Your task to perform on an android device: Clear all items from cart on bestbuy. Image 0: 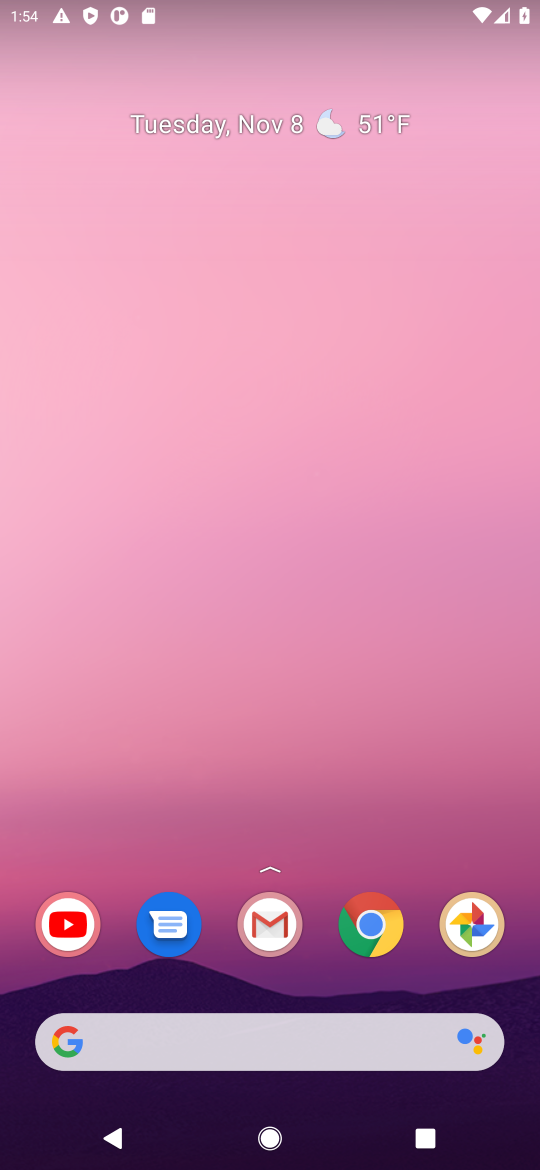
Step 0: click (385, 856)
Your task to perform on an android device: Clear all items from cart on bestbuy. Image 1: 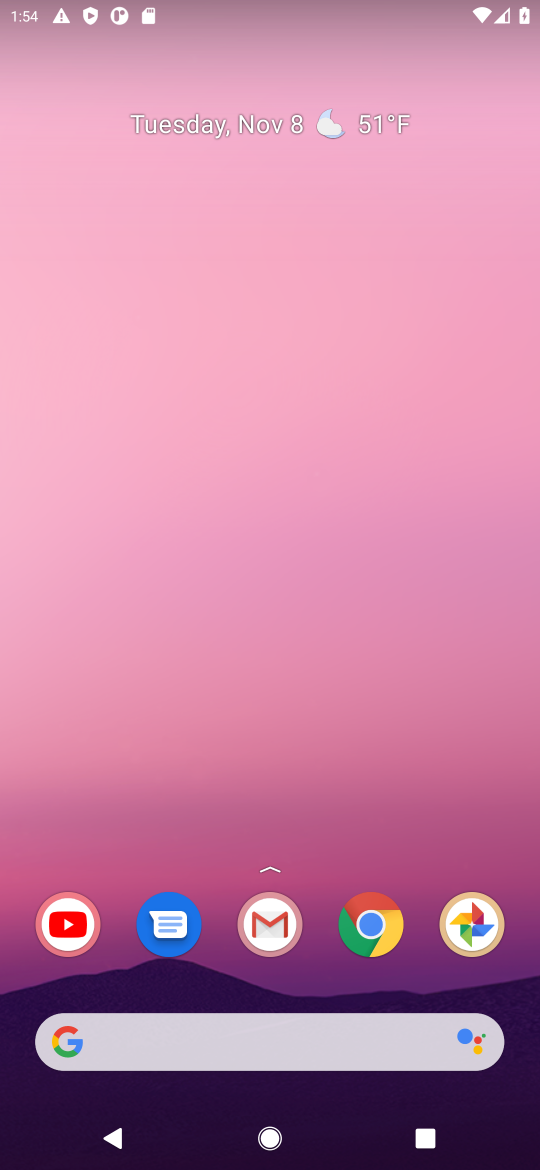
Step 1: click (385, 936)
Your task to perform on an android device: Clear all items from cart on bestbuy. Image 2: 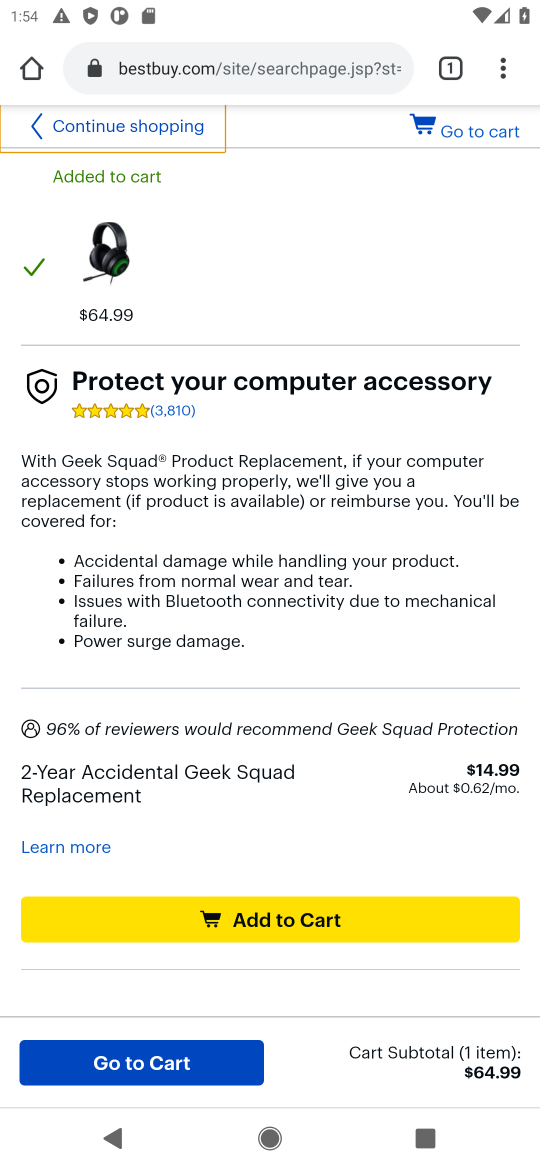
Step 2: click (477, 128)
Your task to perform on an android device: Clear all items from cart on bestbuy. Image 3: 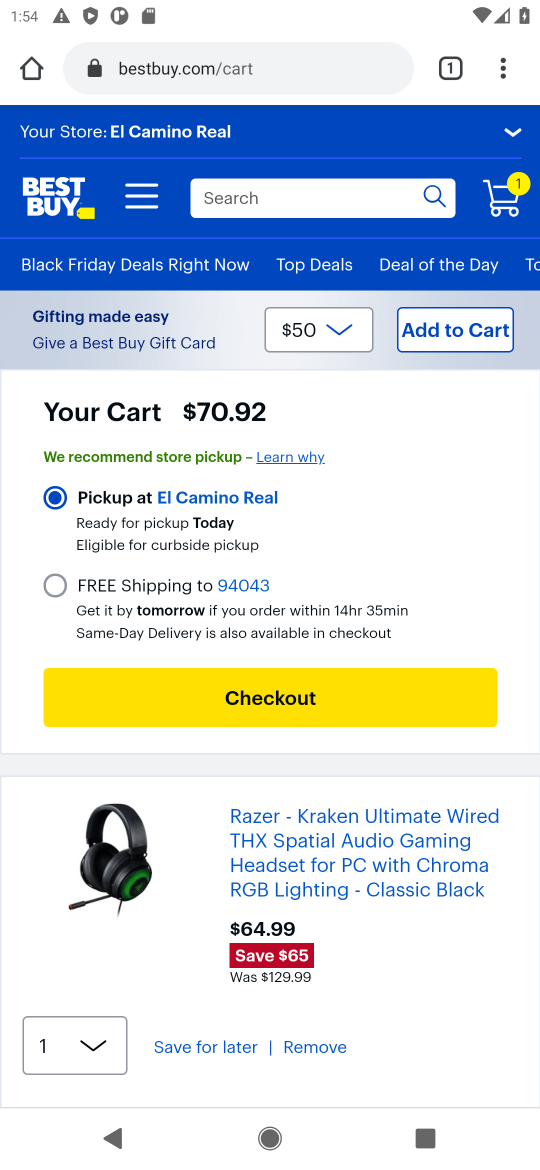
Step 3: click (303, 1045)
Your task to perform on an android device: Clear all items from cart on bestbuy. Image 4: 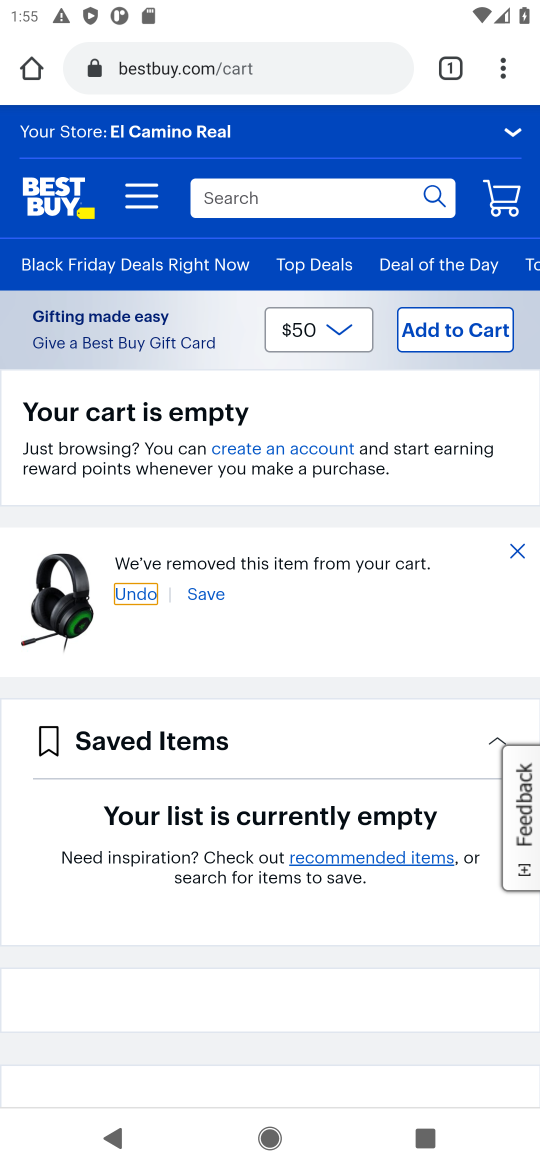
Step 4: task complete